Your task to perform on an android device: turn notification dots off Image 0: 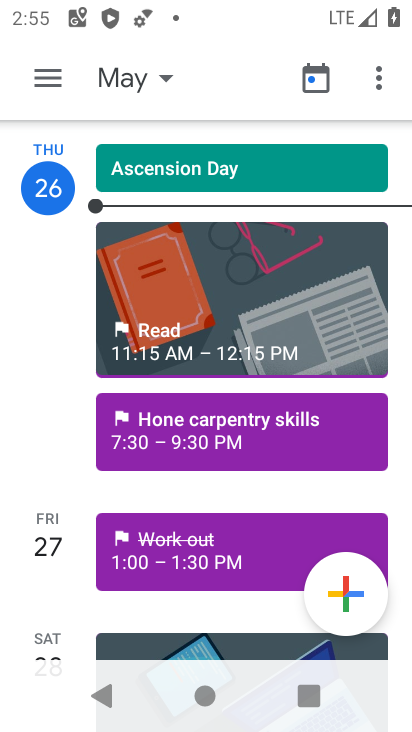
Step 0: press home button
Your task to perform on an android device: turn notification dots off Image 1: 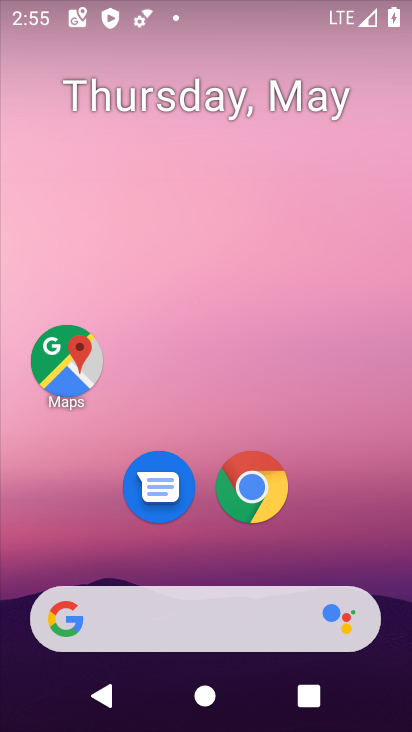
Step 1: drag from (201, 641) to (282, 110)
Your task to perform on an android device: turn notification dots off Image 2: 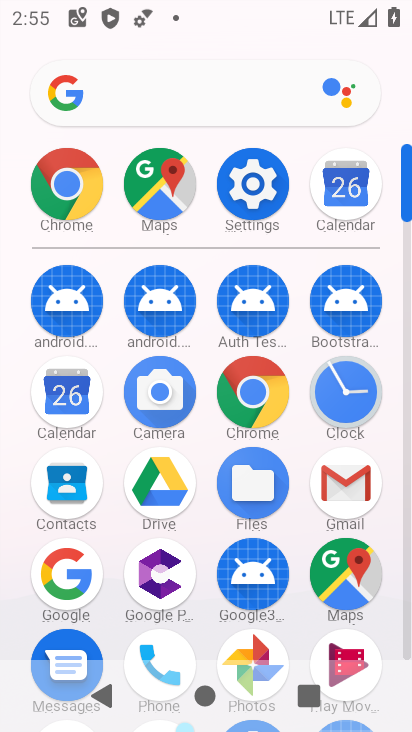
Step 2: click (247, 188)
Your task to perform on an android device: turn notification dots off Image 3: 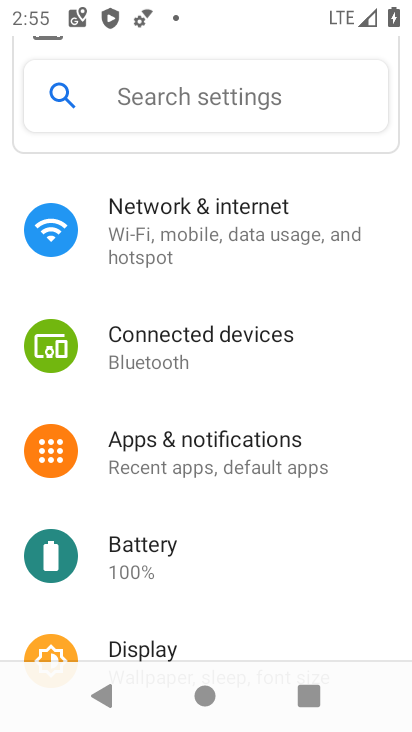
Step 3: drag from (200, 511) to (241, 274)
Your task to perform on an android device: turn notification dots off Image 4: 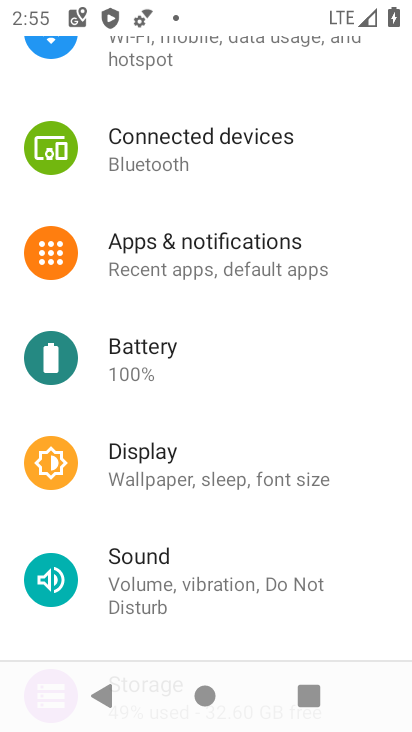
Step 4: drag from (221, 524) to (262, 307)
Your task to perform on an android device: turn notification dots off Image 5: 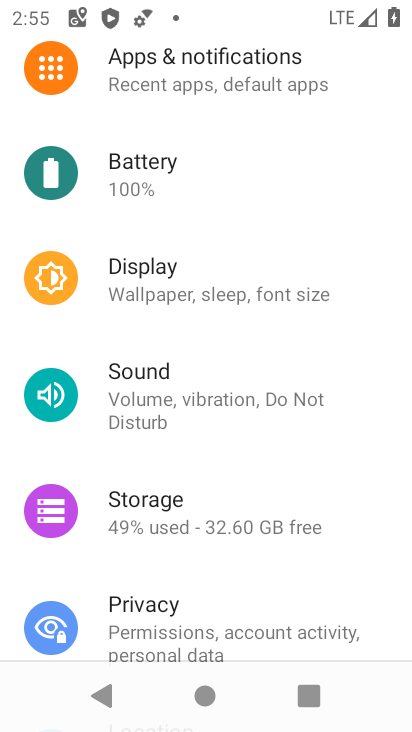
Step 5: drag from (262, 313) to (252, 544)
Your task to perform on an android device: turn notification dots off Image 6: 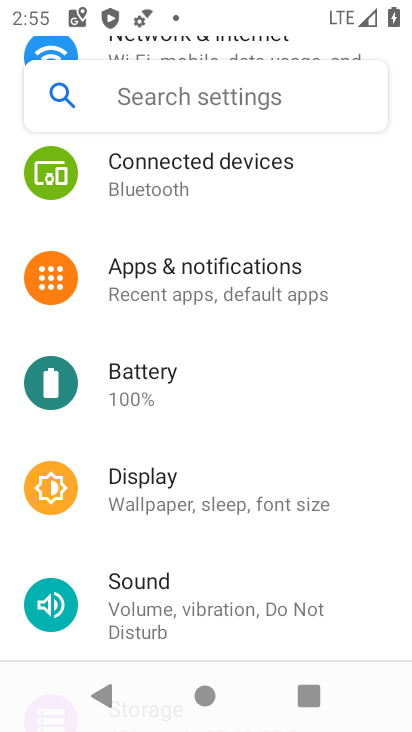
Step 6: click (271, 275)
Your task to perform on an android device: turn notification dots off Image 7: 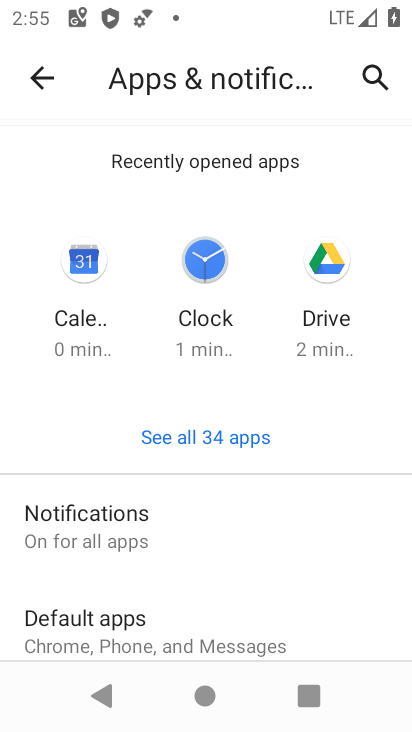
Step 7: click (223, 503)
Your task to perform on an android device: turn notification dots off Image 8: 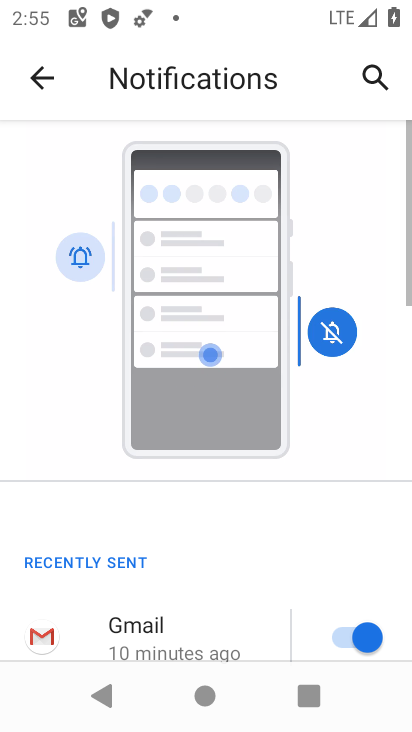
Step 8: drag from (235, 500) to (294, 181)
Your task to perform on an android device: turn notification dots off Image 9: 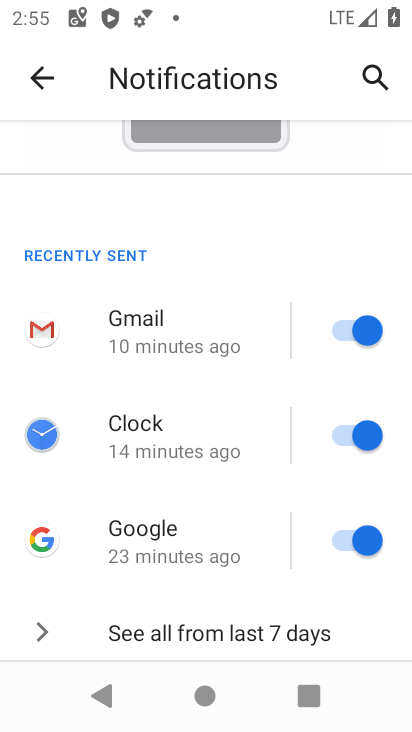
Step 9: drag from (206, 490) to (293, 169)
Your task to perform on an android device: turn notification dots off Image 10: 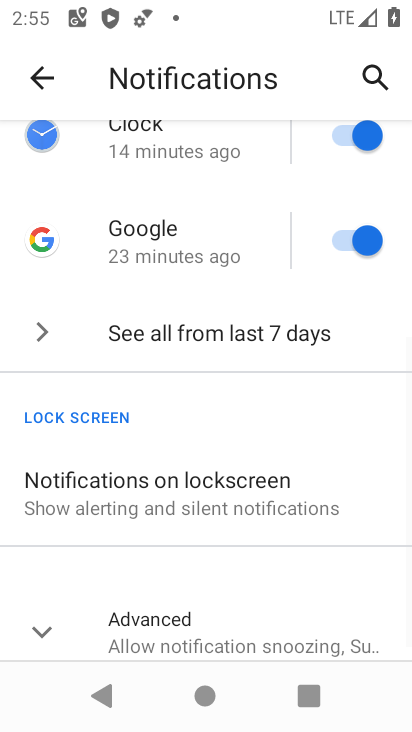
Step 10: drag from (218, 551) to (264, 227)
Your task to perform on an android device: turn notification dots off Image 11: 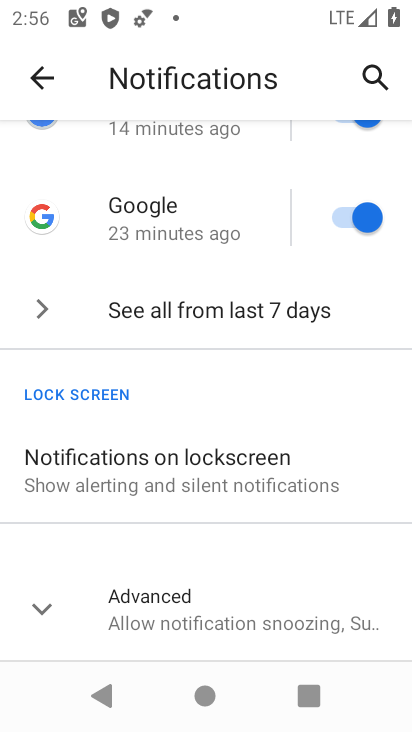
Step 11: click (238, 610)
Your task to perform on an android device: turn notification dots off Image 12: 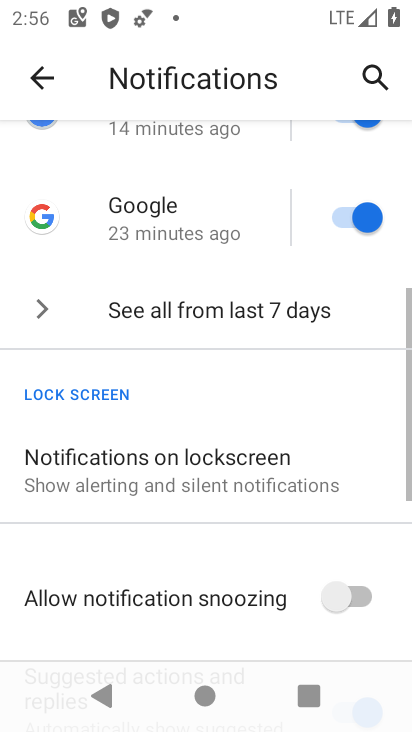
Step 12: drag from (257, 543) to (282, 209)
Your task to perform on an android device: turn notification dots off Image 13: 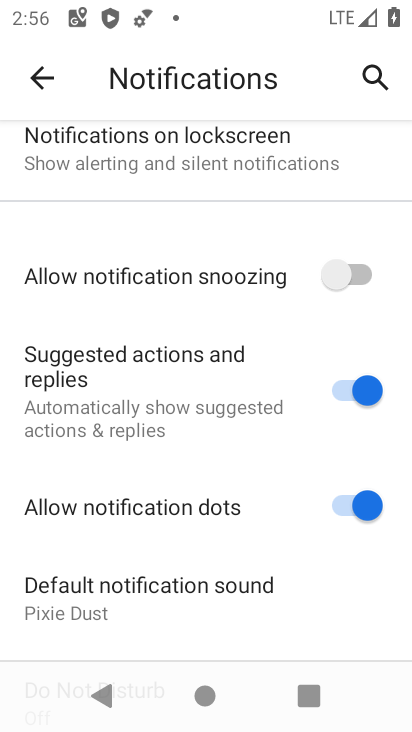
Step 13: click (332, 513)
Your task to perform on an android device: turn notification dots off Image 14: 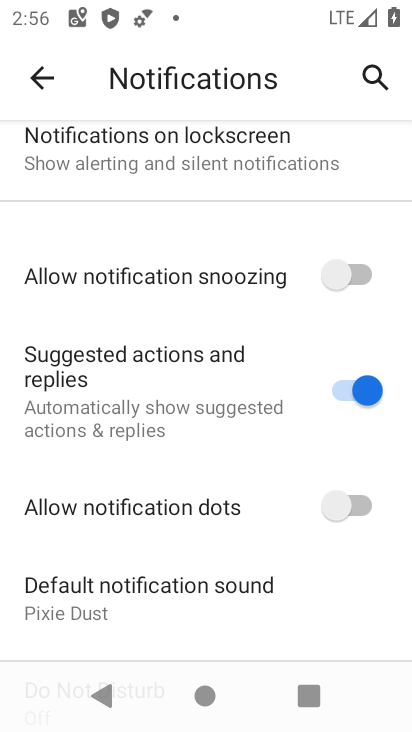
Step 14: task complete